Your task to perform on an android device: toggle show notifications on the lock screen Image 0: 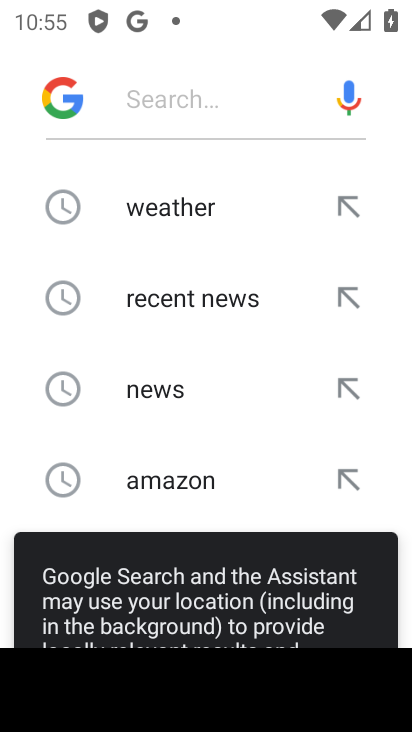
Step 0: press home button
Your task to perform on an android device: toggle show notifications on the lock screen Image 1: 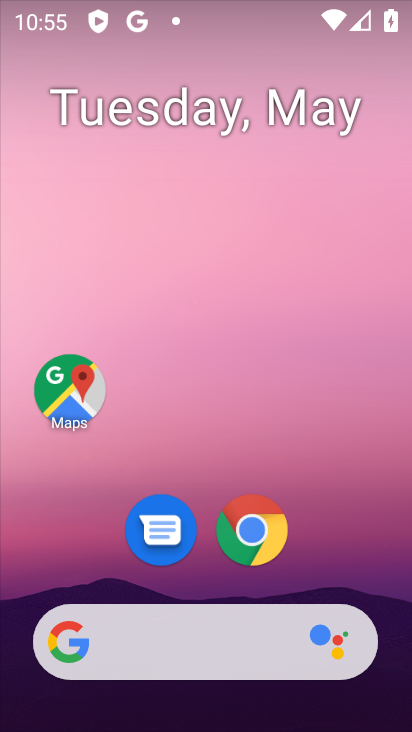
Step 1: drag from (341, 531) to (340, 113)
Your task to perform on an android device: toggle show notifications on the lock screen Image 2: 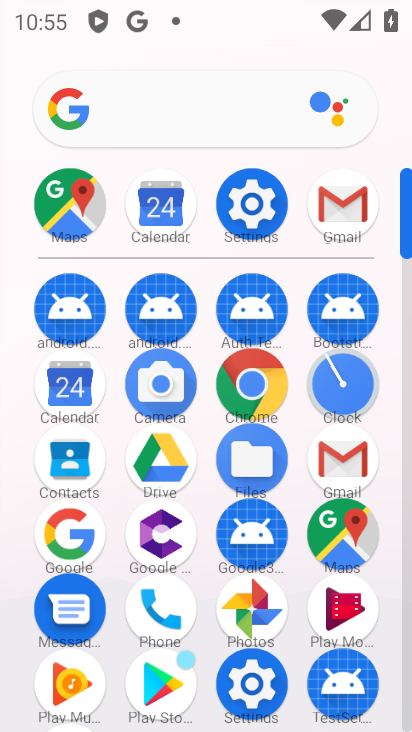
Step 2: click (259, 190)
Your task to perform on an android device: toggle show notifications on the lock screen Image 3: 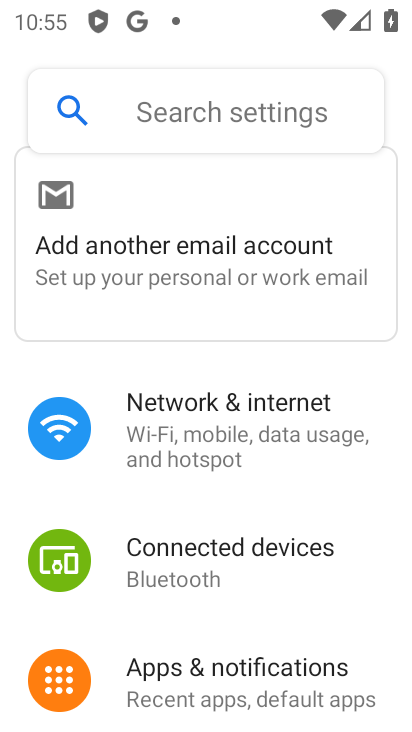
Step 3: drag from (209, 611) to (248, 171)
Your task to perform on an android device: toggle show notifications on the lock screen Image 4: 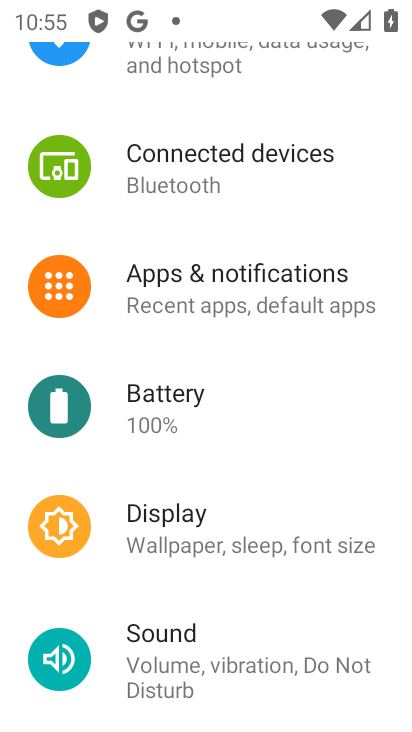
Step 4: drag from (218, 528) to (311, 229)
Your task to perform on an android device: toggle show notifications on the lock screen Image 5: 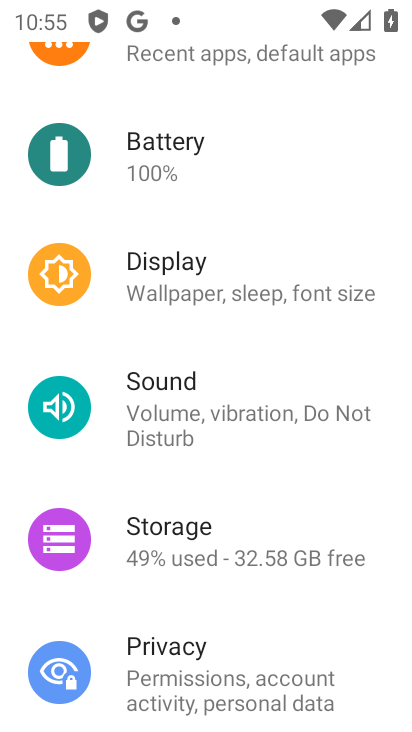
Step 5: drag from (218, 528) to (407, 181)
Your task to perform on an android device: toggle show notifications on the lock screen Image 6: 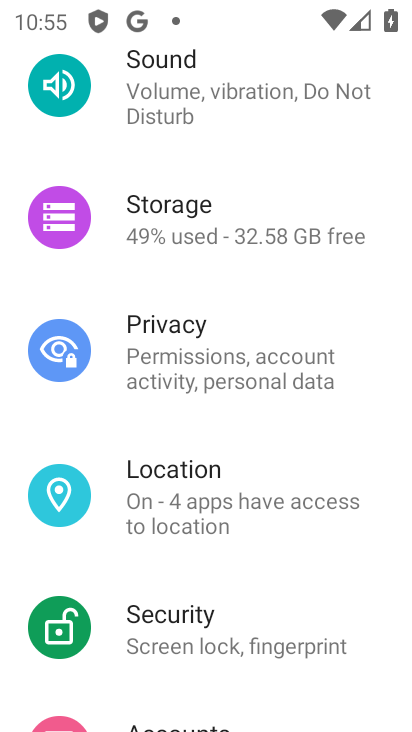
Step 6: drag from (206, 556) to (393, 203)
Your task to perform on an android device: toggle show notifications on the lock screen Image 7: 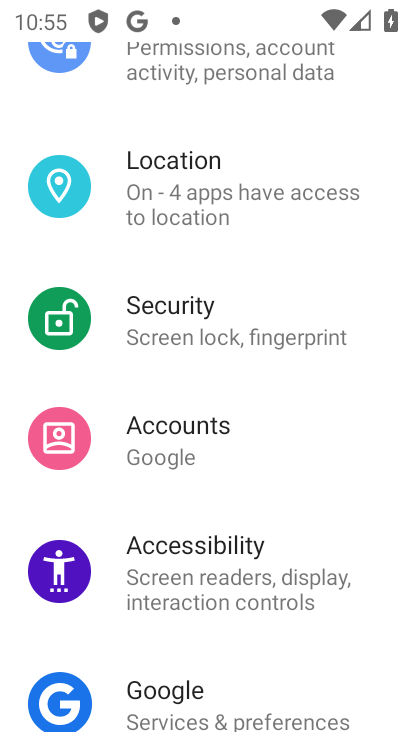
Step 7: drag from (221, 217) to (212, 720)
Your task to perform on an android device: toggle show notifications on the lock screen Image 8: 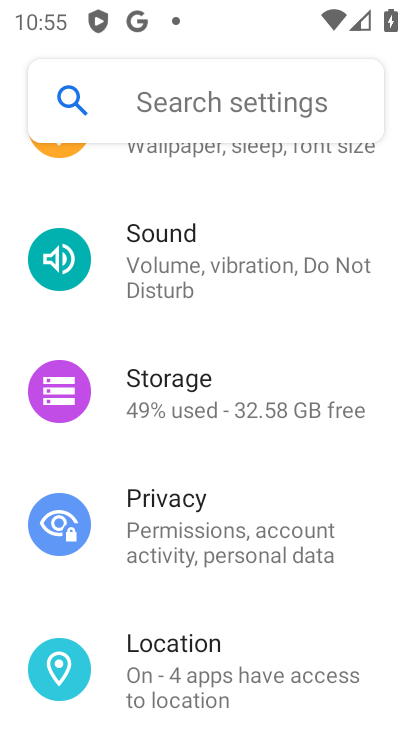
Step 8: drag from (213, 419) to (208, 730)
Your task to perform on an android device: toggle show notifications on the lock screen Image 9: 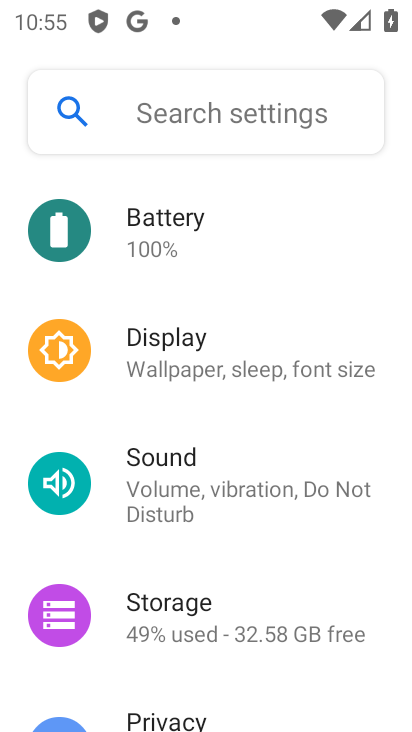
Step 9: drag from (236, 217) to (219, 597)
Your task to perform on an android device: toggle show notifications on the lock screen Image 10: 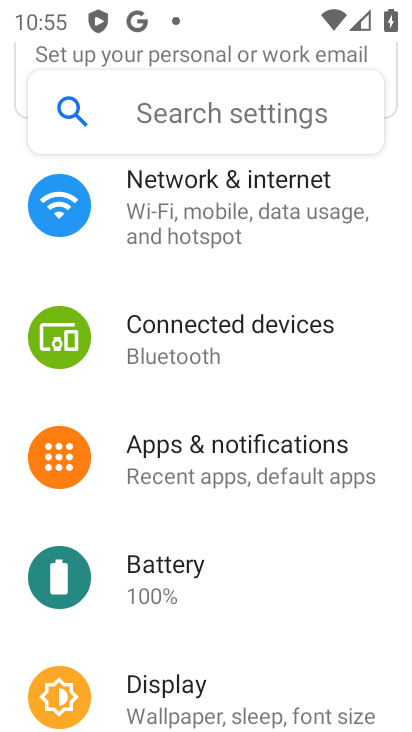
Step 10: click (209, 443)
Your task to perform on an android device: toggle show notifications on the lock screen Image 11: 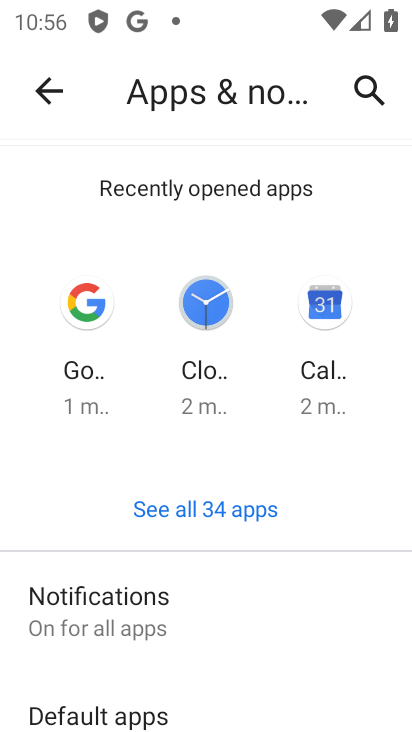
Step 11: click (126, 606)
Your task to perform on an android device: toggle show notifications on the lock screen Image 12: 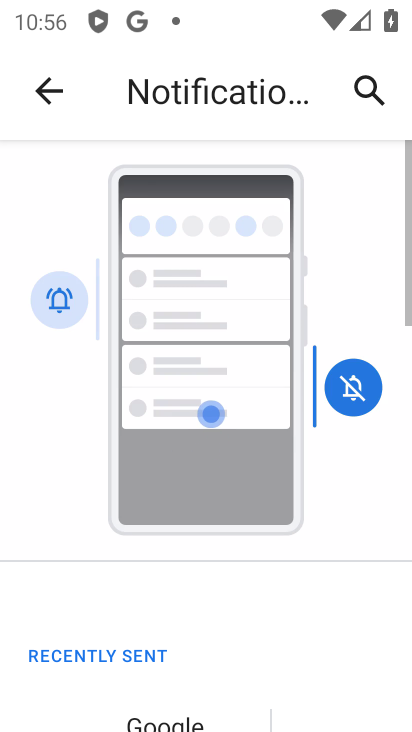
Step 12: drag from (229, 644) to (277, 81)
Your task to perform on an android device: toggle show notifications on the lock screen Image 13: 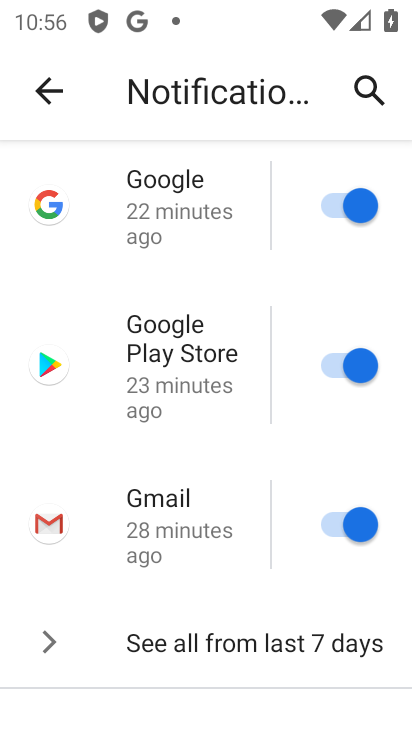
Step 13: drag from (212, 629) to (240, 89)
Your task to perform on an android device: toggle show notifications on the lock screen Image 14: 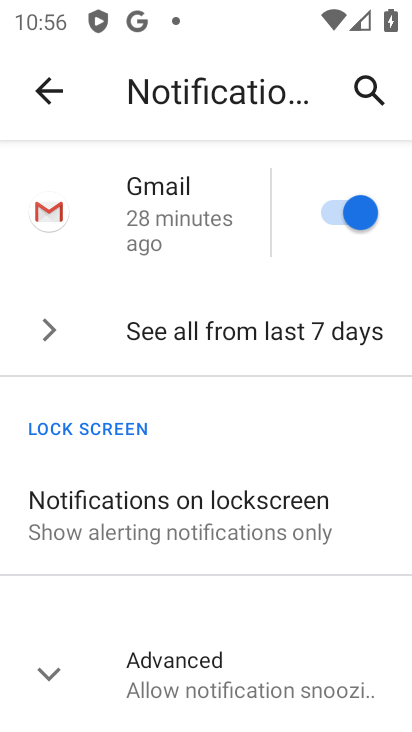
Step 14: click (250, 520)
Your task to perform on an android device: toggle show notifications on the lock screen Image 15: 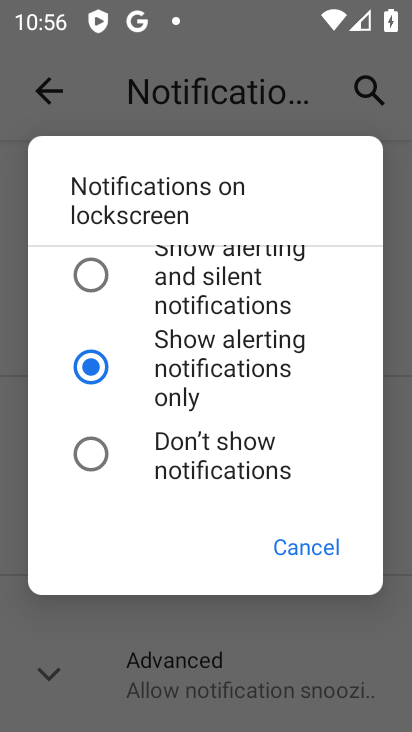
Step 15: click (213, 281)
Your task to perform on an android device: toggle show notifications on the lock screen Image 16: 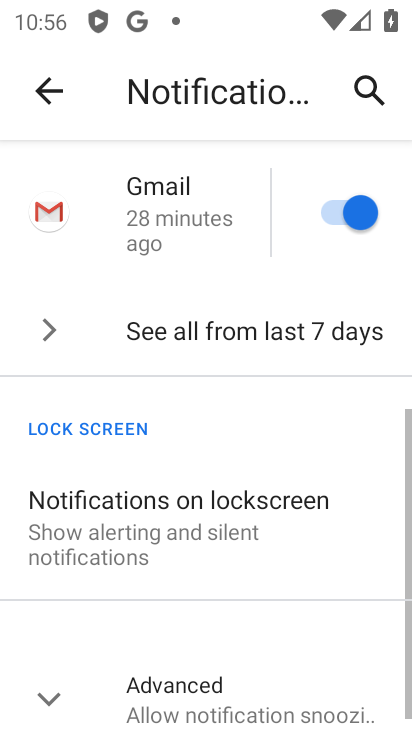
Step 16: task complete